Your task to perform on an android device: check android version Image 0: 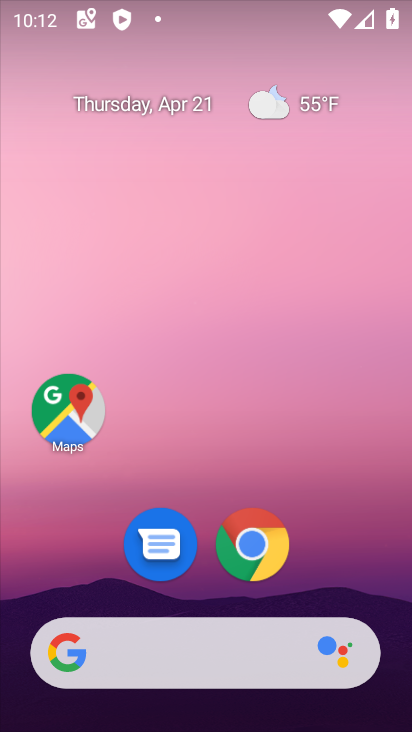
Step 0: drag from (282, 361) to (238, 49)
Your task to perform on an android device: check android version Image 1: 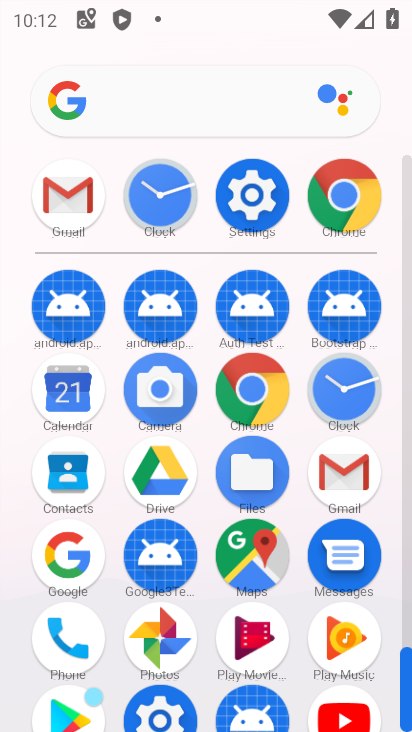
Step 1: click (256, 191)
Your task to perform on an android device: check android version Image 2: 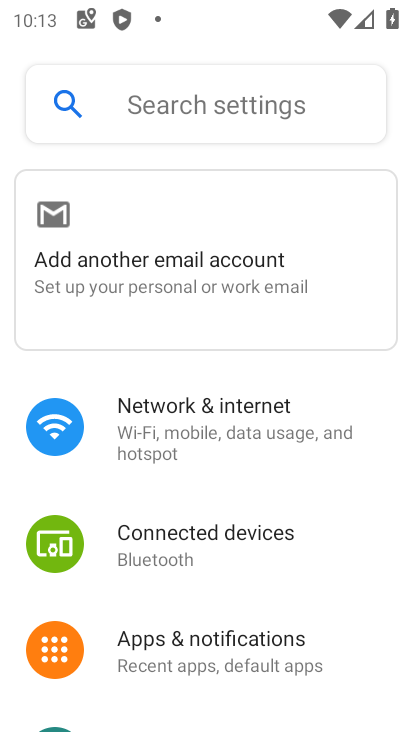
Step 2: drag from (331, 563) to (329, 112)
Your task to perform on an android device: check android version Image 3: 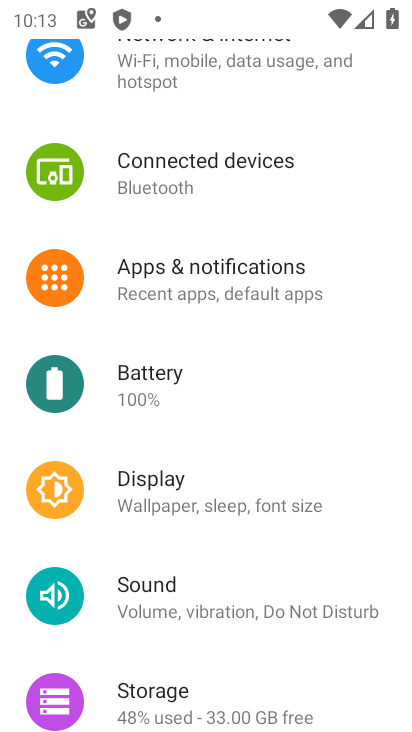
Step 3: drag from (311, 428) to (293, 96)
Your task to perform on an android device: check android version Image 4: 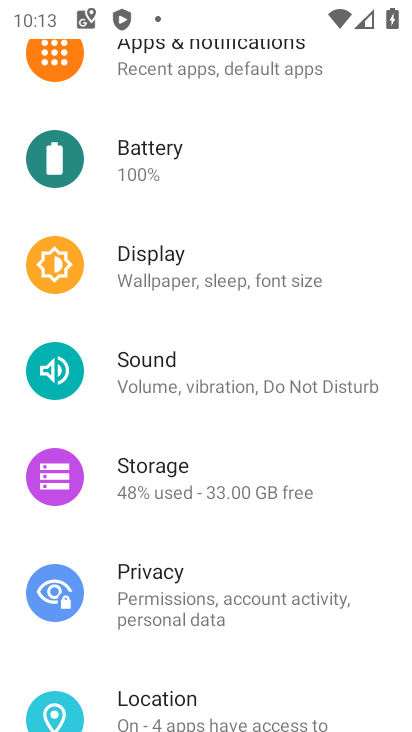
Step 4: drag from (289, 560) to (271, 118)
Your task to perform on an android device: check android version Image 5: 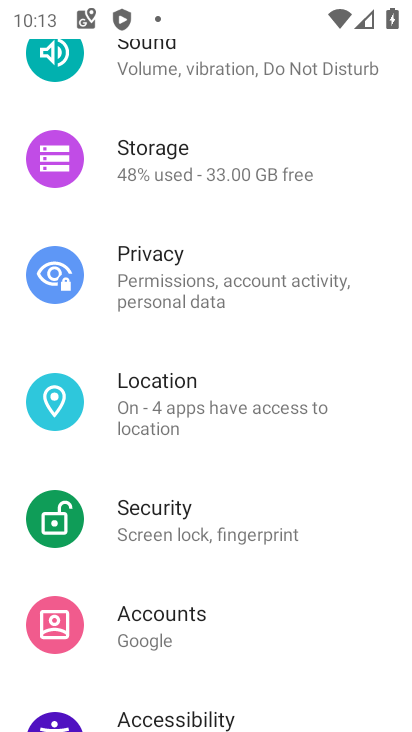
Step 5: drag from (289, 466) to (265, 71)
Your task to perform on an android device: check android version Image 6: 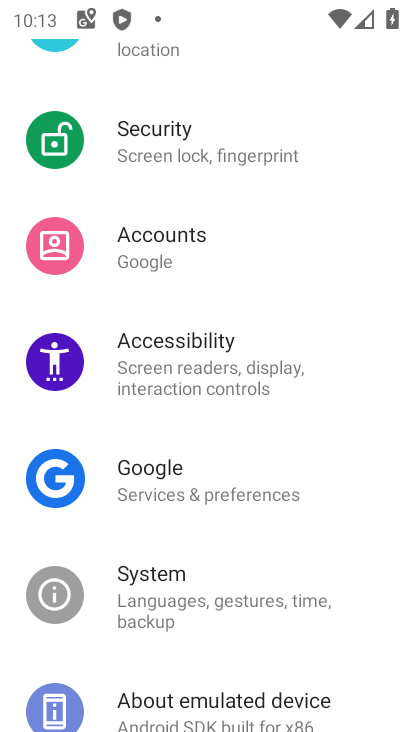
Step 6: click (279, 695)
Your task to perform on an android device: check android version Image 7: 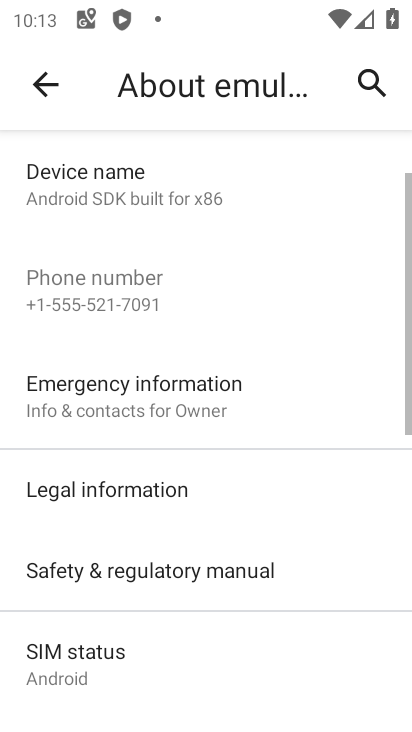
Step 7: task complete